Your task to perform on an android device: turn on data saver in the chrome app Image 0: 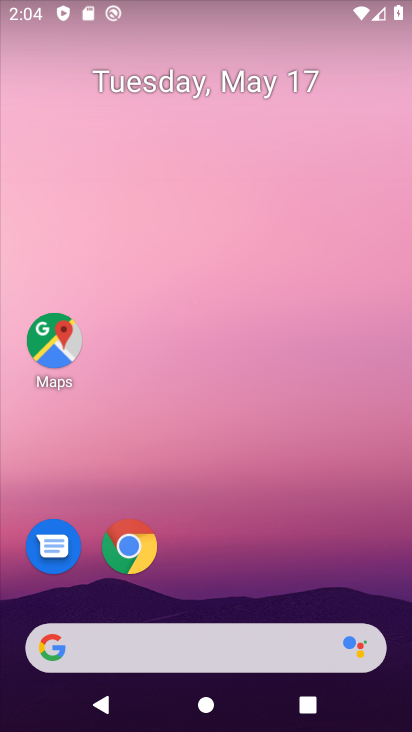
Step 0: drag from (264, 645) to (235, 327)
Your task to perform on an android device: turn on data saver in the chrome app Image 1: 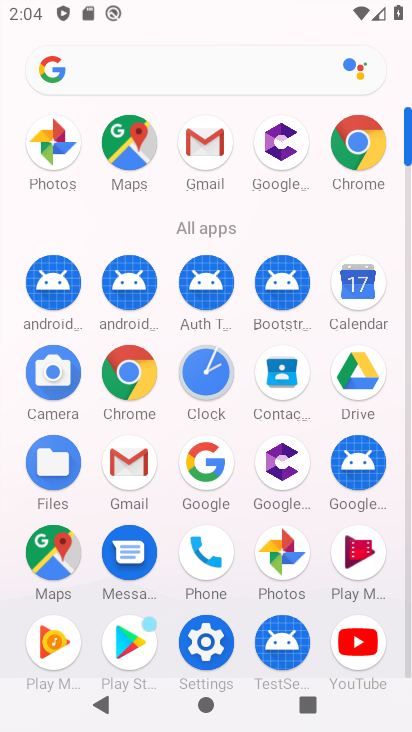
Step 1: click (341, 153)
Your task to perform on an android device: turn on data saver in the chrome app Image 2: 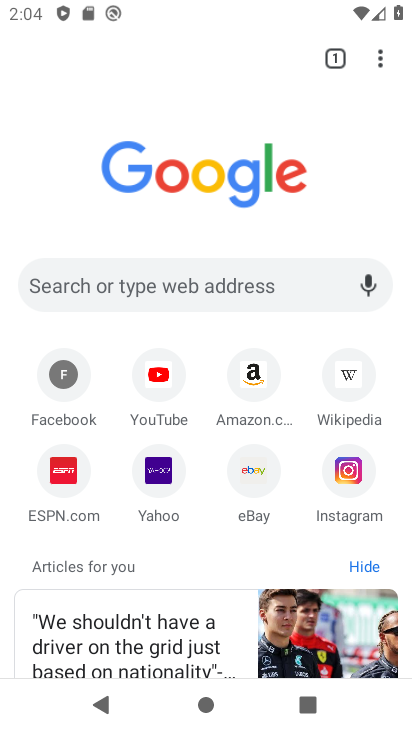
Step 2: click (384, 64)
Your task to perform on an android device: turn on data saver in the chrome app Image 3: 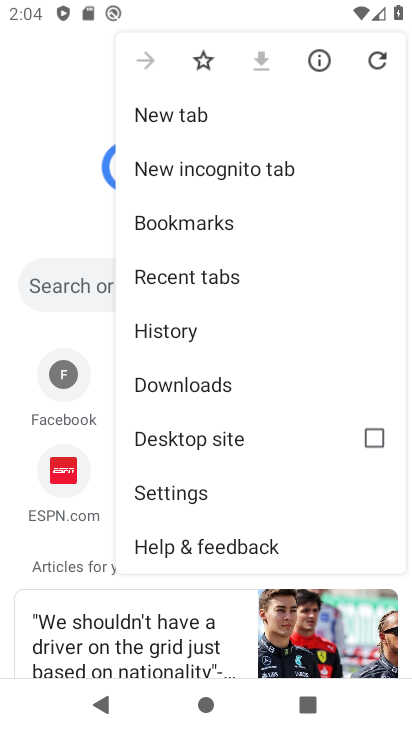
Step 3: click (259, 492)
Your task to perform on an android device: turn on data saver in the chrome app Image 4: 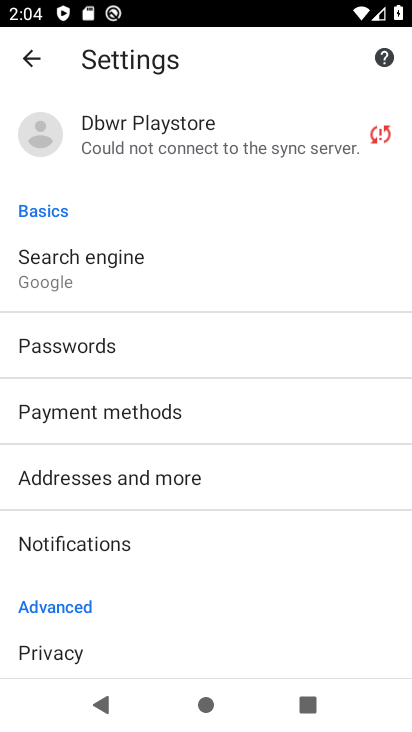
Step 4: drag from (188, 603) to (161, 384)
Your task to perform on an android device: turn on data saver in the chrome app Image 5: 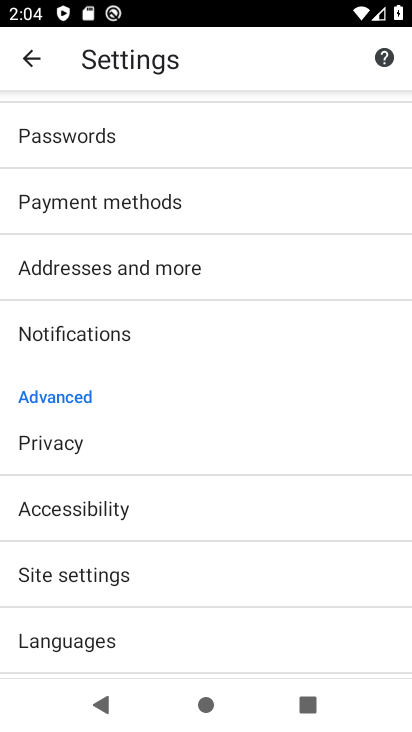
Step 5: drag from (186, 619) to (121, 306)
Your task to perform on an android device: turn on data saver in the chrome app Image 6: 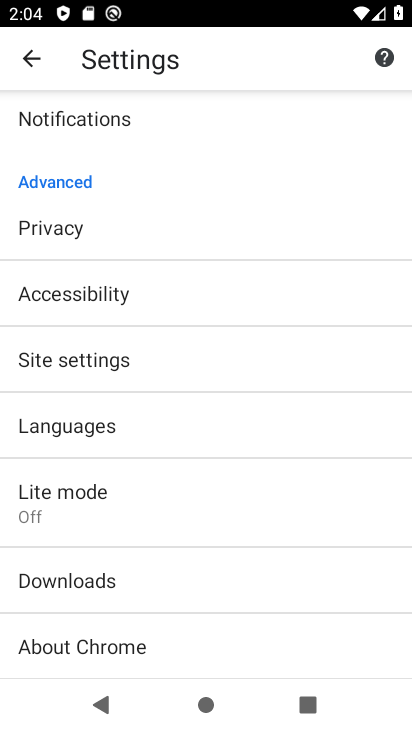
Step 6: drag from (146, 555) to (114, 336)
Your task to perform on an android device: turn on data saver in the chrome app Image 7: 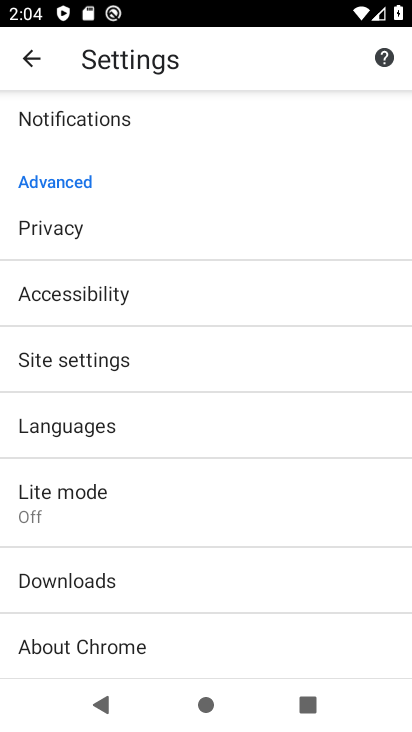
Step 7: click (138, 515)
Your task to perform on an android device: turn on data saver in the chrome app Image 8: 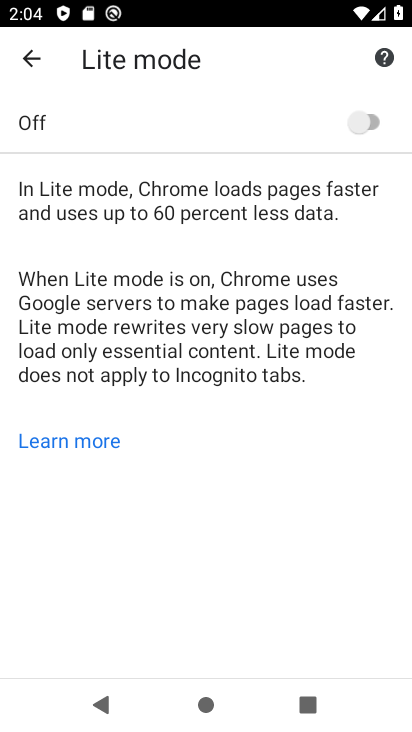
Step 8: click (352, 129)
Your task to perform on an android device: turn on data saver in the chrome app Image 9: 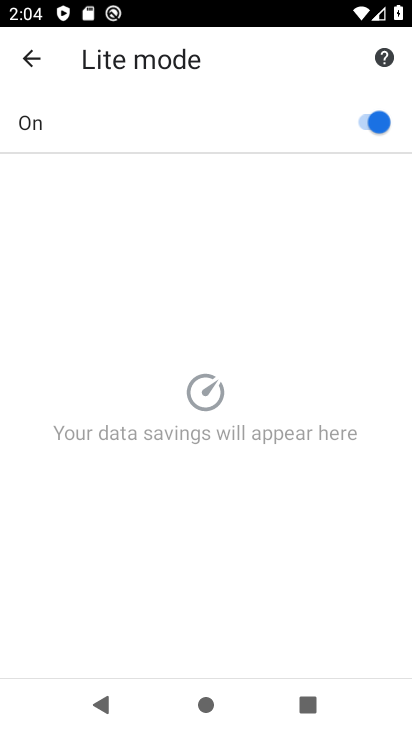
Step 9: task complete